Your task to perform on an android device: toggle notifications settings in the gmail app Image 0: 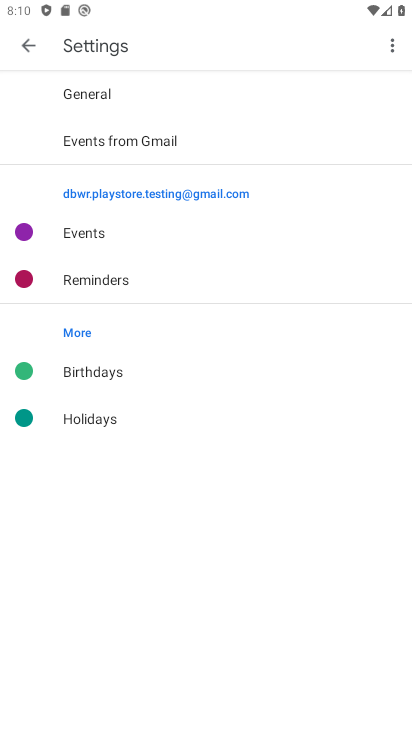
Step 0: press home button
Your task to perform on an android device: toggle notifications settings in the gmail app Image 1: 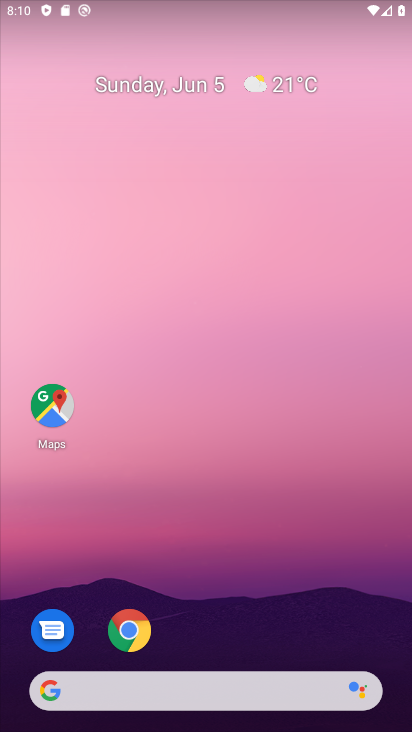
Step 1: click (246, 213)
Your task to perform on an android device: toggle notifications settings in the gmail app Image 2: 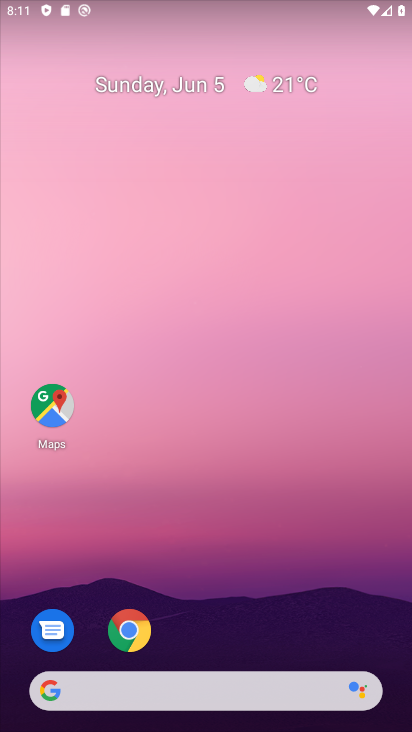
Step 2: drag from (210, 675) to (233, 272)
Your task to perform on an android device: toggle notifications settings in the gmail app Image 3: 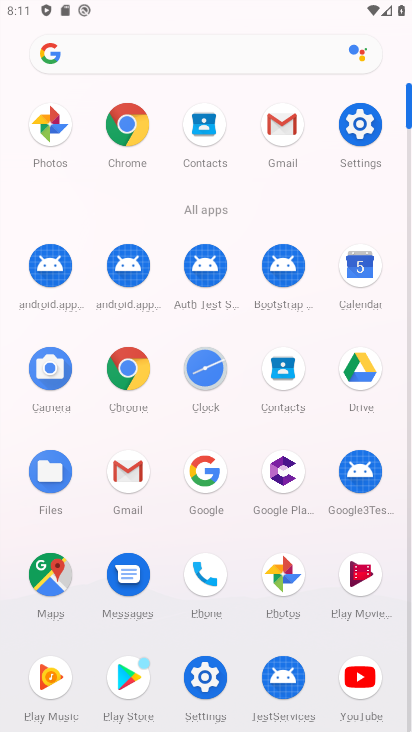
Step 3: click (291, 115)
Your task to perform on an android device: toggle notifications settings in the gmail app Image 4: 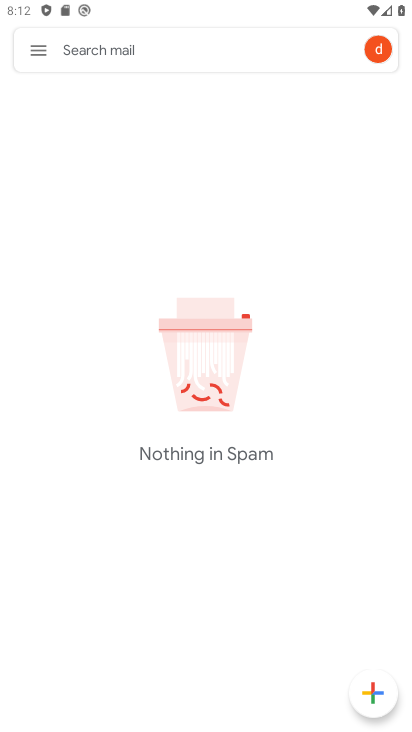
Step 4: click (35, 48)
Your task to perform on an android device: toggle notifications settings in the gmail app Image 5: 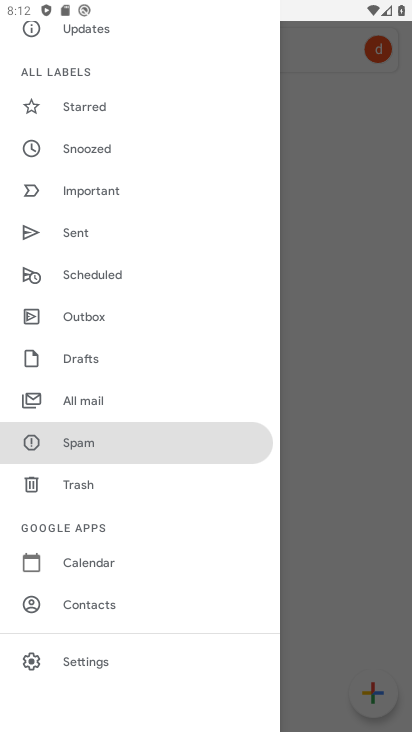
Step 5: click (87, 656)
Your task to perform on an android device: toggle notifications settings in the gmail app Image 6: 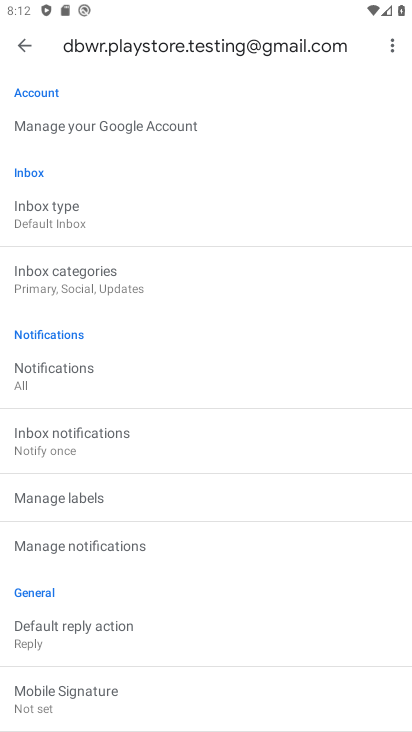
Step 6: click (101, 544)
Your task to perform on an android device: toggle notifications settings in the gmail app Image 7: 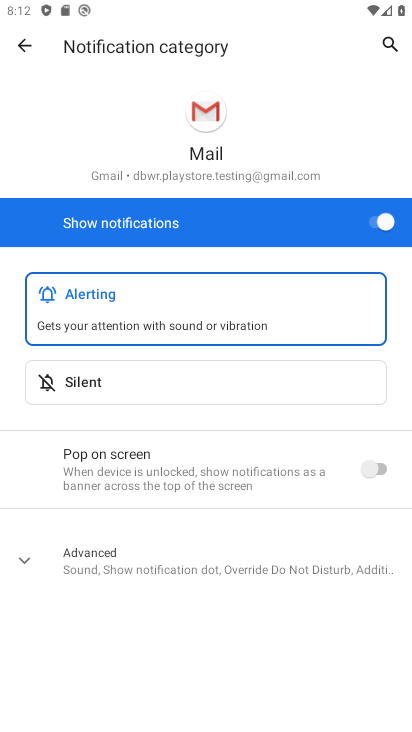
Step 7: click (379, 229)
Your task to perform on an android device: toggle notifications settings in the gmail app Image 8: 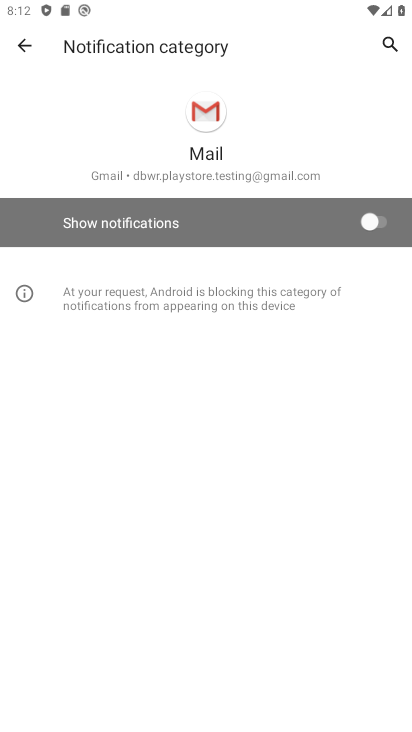
Step 8: task complete